Your task to perform on an android device: Check the weather Image 0: 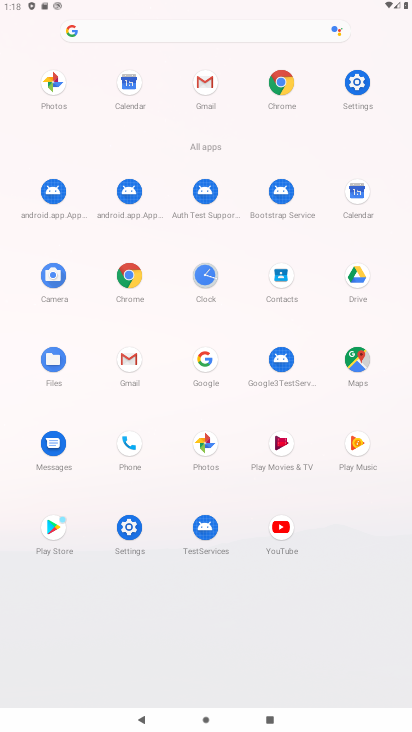
Step 0: click (135, 273)
Your task to perform on an android device: Check the weather Image 1: 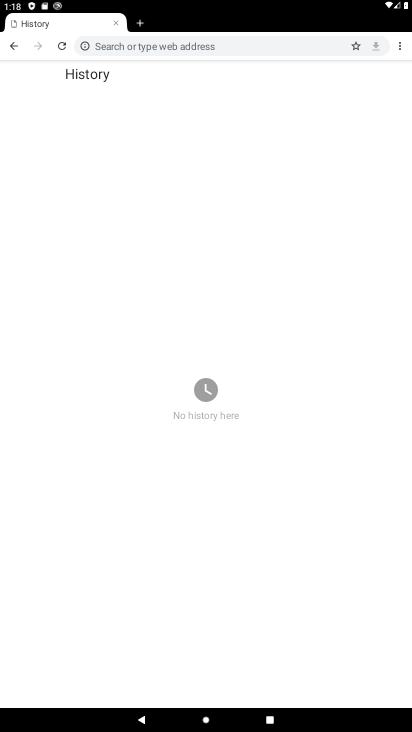
Step 1: click (235, 39)
Your task to perform on an android device: Check the weather Image 2: 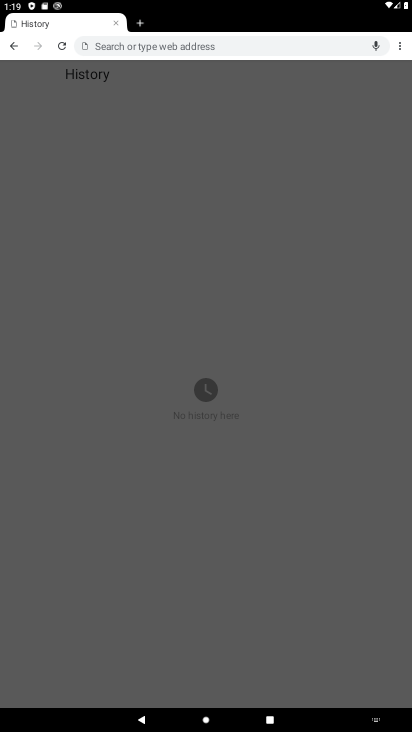
Step 2: type "check the weather"
Your task to perform on an android device: Check the weather Image 3: 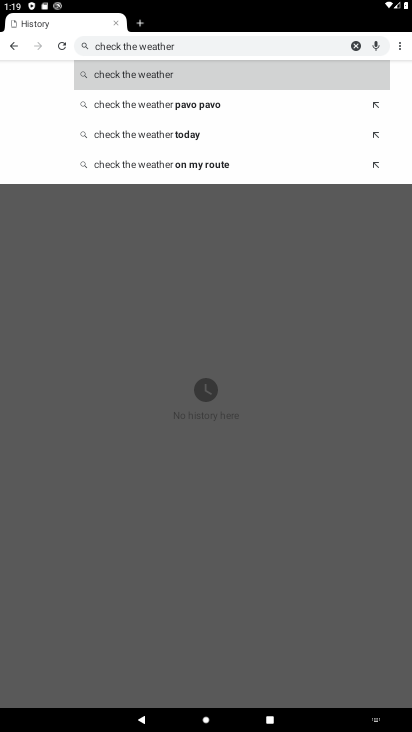
Step 3: click (126, 60)
Your task to perform on an android device: Check the weather Image 4: 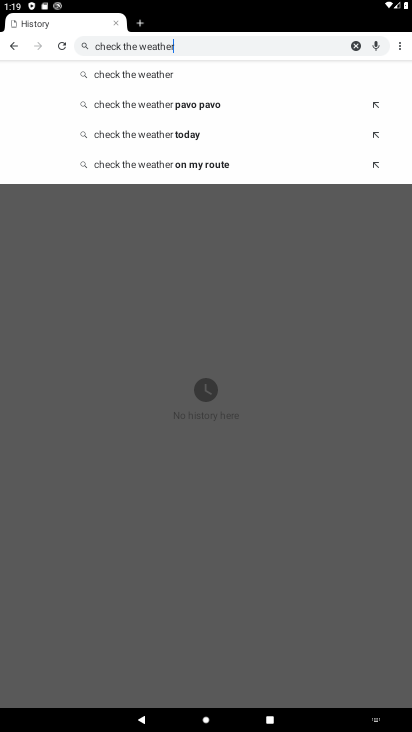
Step 4: click (163, 72)
Your task to perform on an android device: Check the weather Image 5: 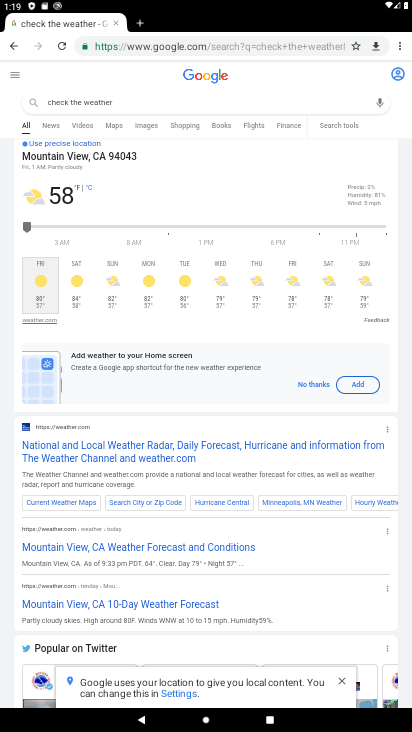
Step 5: task complete